Your task to perform on an android device: Go to notification settings Image 0: 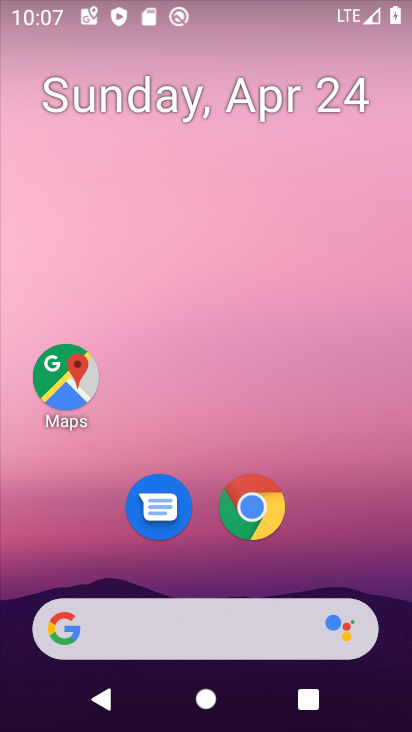
Step 0: drag from (202, 587) to (223, 187)
Your task to perform on an android device: Go to notification settings Image 1: 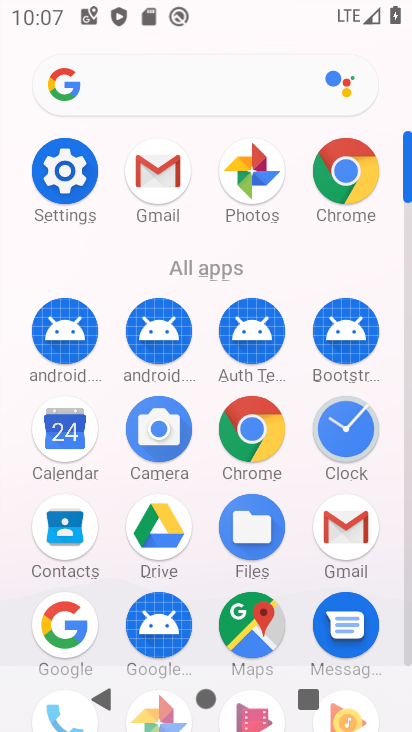
Step 1: drag from (196, 572) to (272, 137)
Your task to perform on an android device: Go to notification settings Image 2: 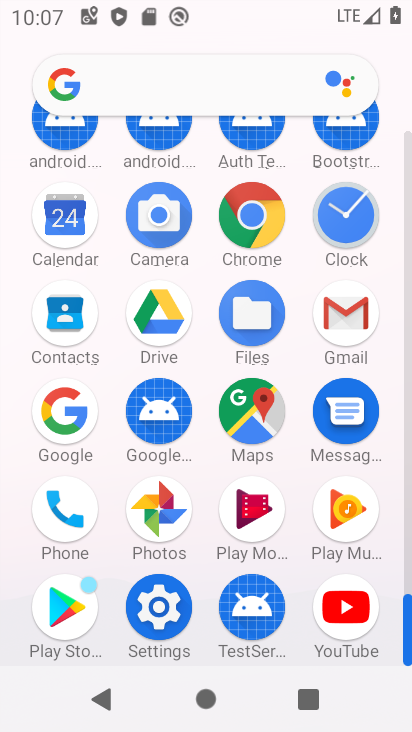
Step 2: click (160, 610)
Your task to perform on an android device: Go to notification settings Image 3: 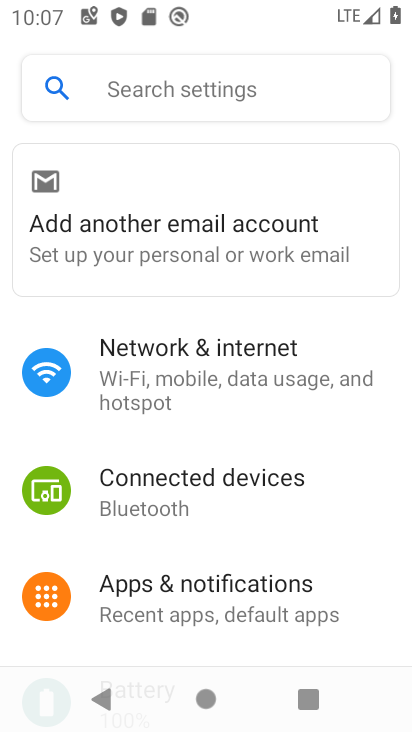
Step 3: click (211, 588)
Your task to perform on an android device: Go to notification settings Image 4: 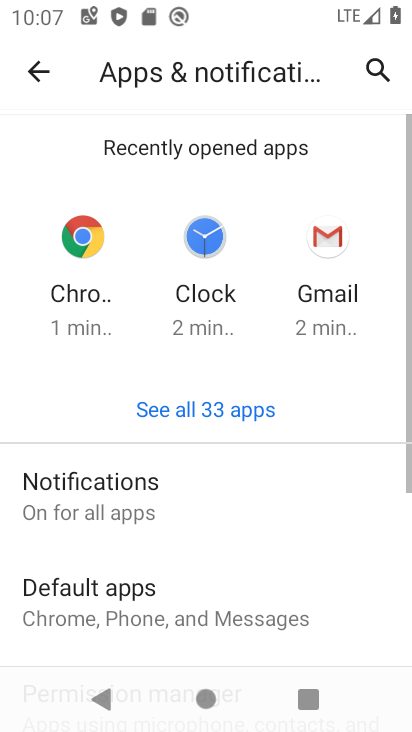
Step 4: task complete